Your task to perform on an android device: open device folders in google photos Image 0: 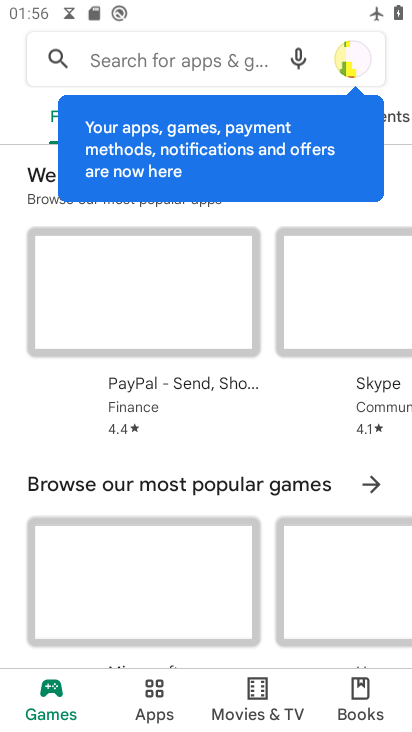
Step 0: press home button
Your task to perform on an android device: open device folders in google photos Image 1: 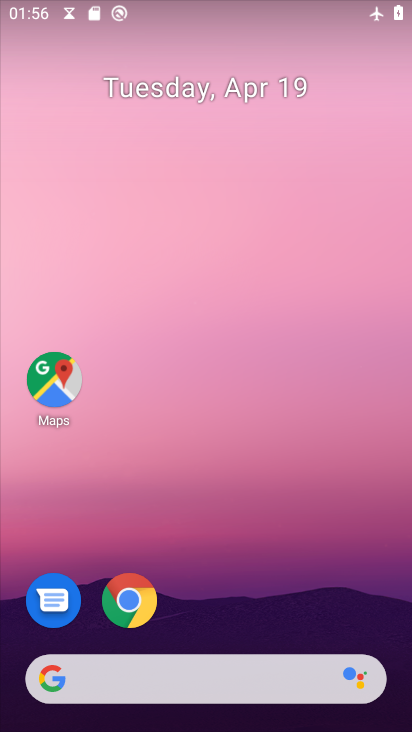
Step 1: drag from (212, 640) to (106, 2)
Your task to perform on an android device: open device folders in google photos Image 2: 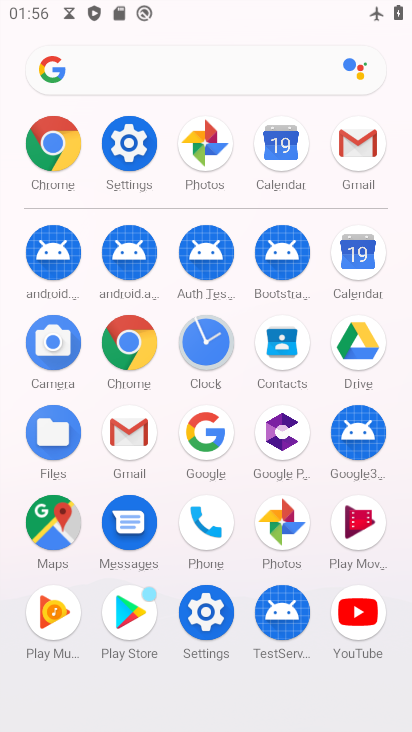
Step 2: click (275, 514)
Your task to perform on an android device: open device folders in google photos Image 3: 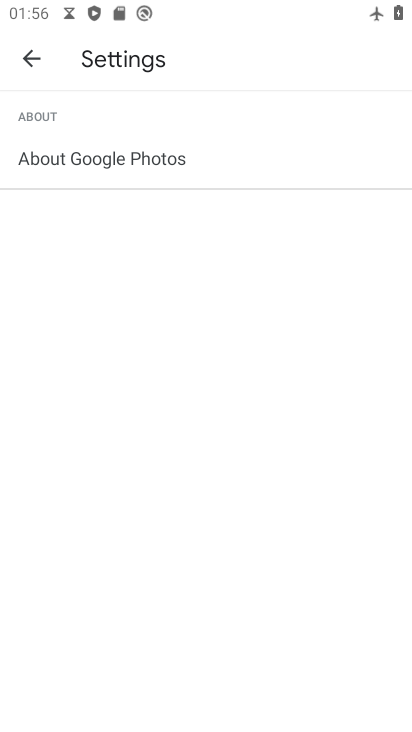
Step 3: click (30, 58)
Your task to perform on an android device: open device folders in google photos Image 4: 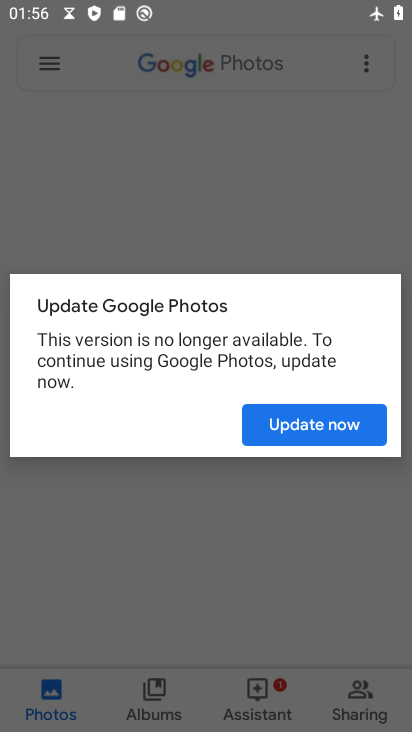
Step 4: click (271, 432)
Your task to perform on an android device: open device folders in google photos Image 5: 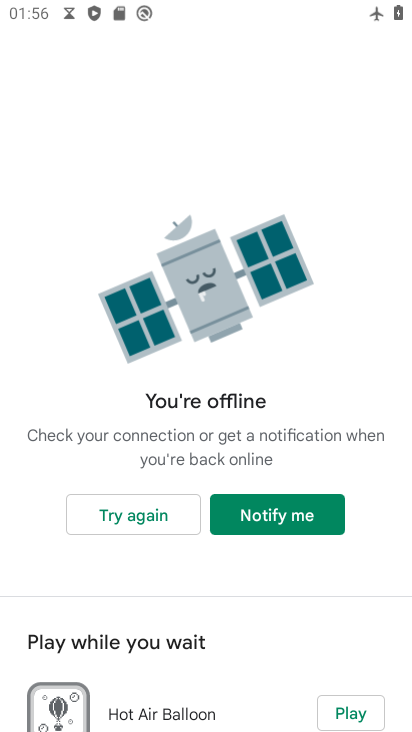
Step 5: press home button
Your task to perform on an android device: open device folders in google photos Image 6: 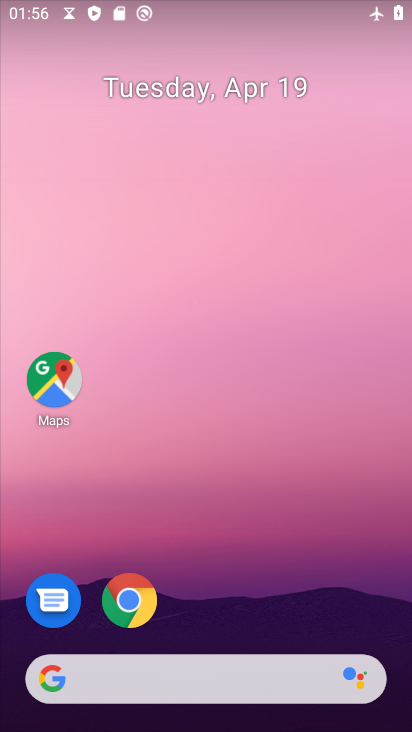
Step 6: drag from (232, 644) to (133, 38)
Your task to perform on an android device: open device folders in google photos Image 7: 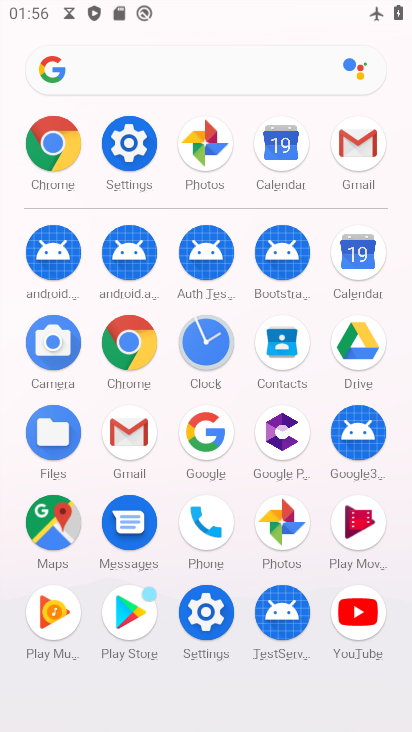
Step 7: click (271, 517)
Your task to perform on an android device: open device folders in google photos Image 8: 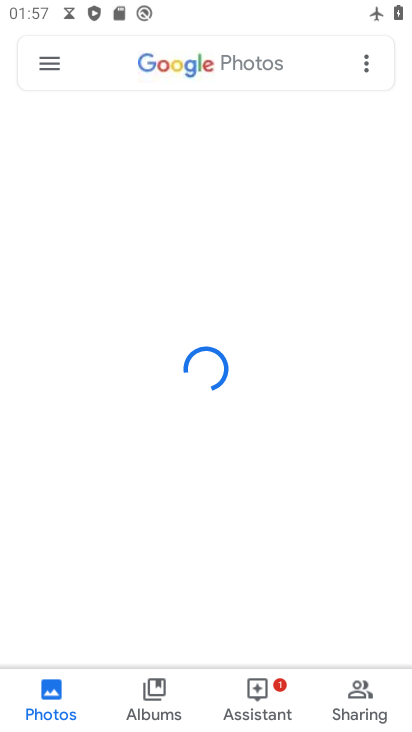
Step 8: click (53, 57)
Your task to perform on an android device: open device folders in google photos Image 9: 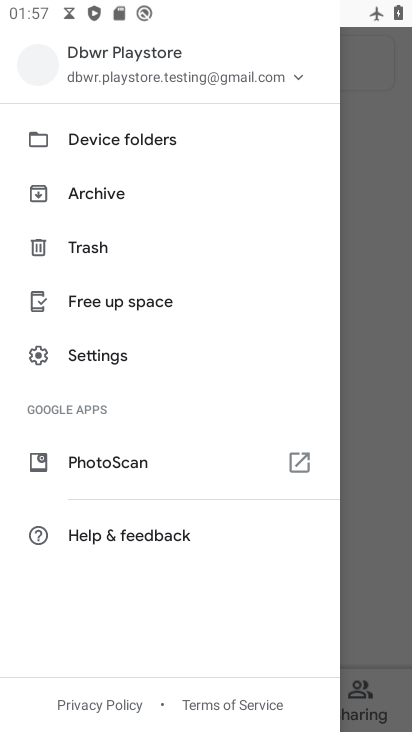
Step 9: click (103, 143)
Your task to perform on an android device: open device folders in google photos Image 10: 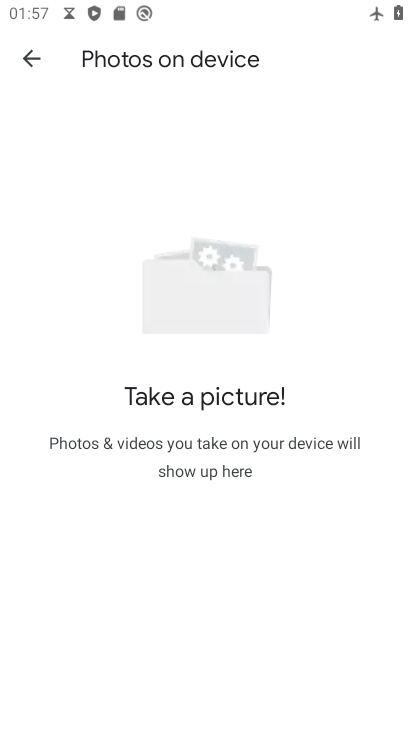
Step 10: task complete